Your task to perform on an android device: Open privacy settings Image 0: 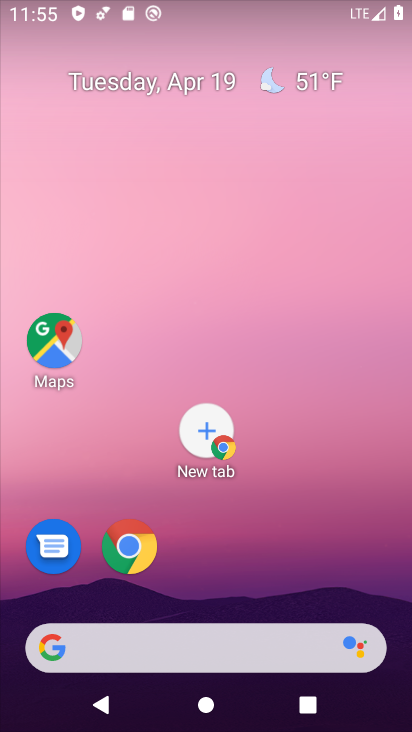
Step 0: drag from (352, 592) to (253, 67)
Your task to perform on an android device: Open privacy settings Image 1: 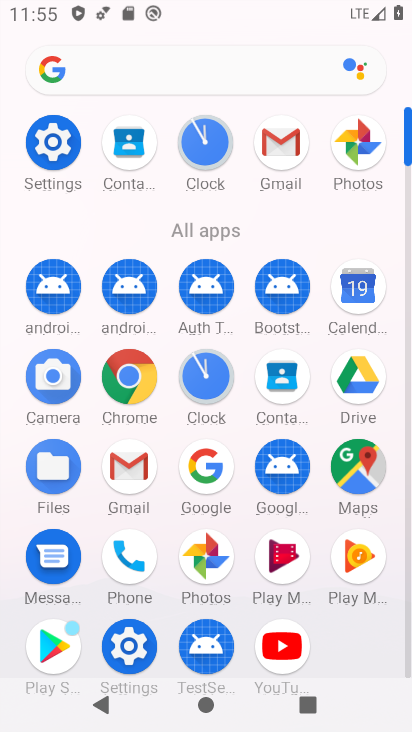
Step 1: click (62, 159)
Your task to perform on an android device: Open privacy settings Image 2: 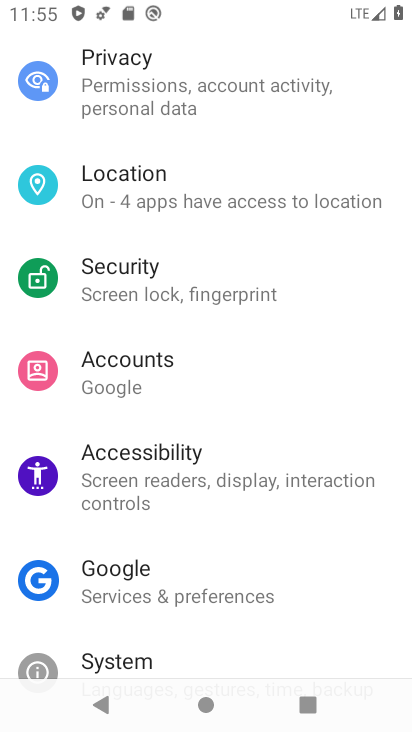
Step 2: click (149, 109)
Your task to perform on an android device: Open privacy settings Image 3: 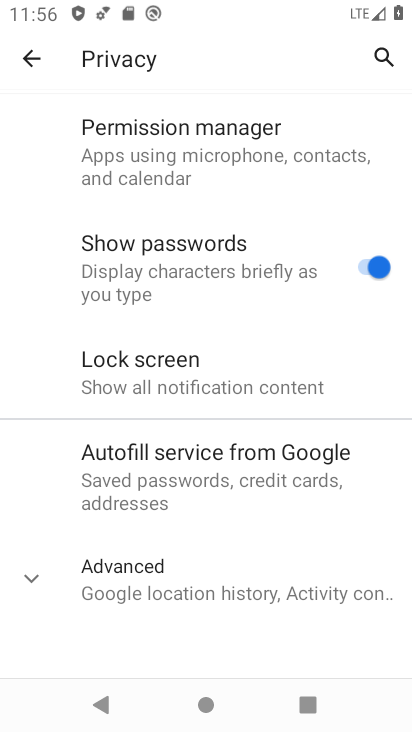
Step 3: drag from (189, 599) to (153, 150)
Your task to perform on an android device: Open privacy settings Image 4: 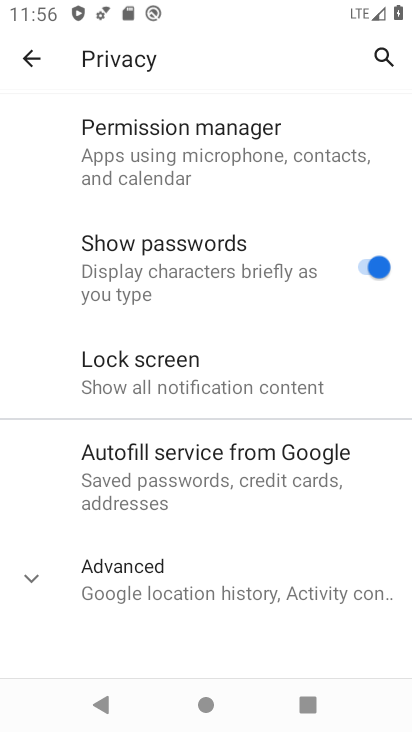
Step 4: click (119, 604)
Your task to perform on an android device: Open privacy settings Image 5: 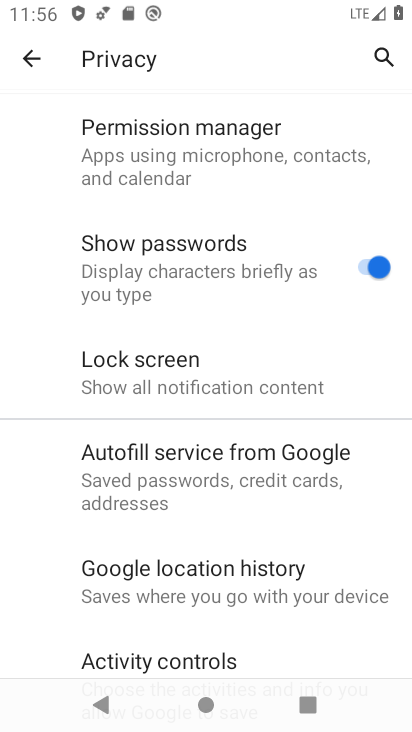
Step 5: task complete